Your task to perform on an android device: Open Google Maps Image 0: 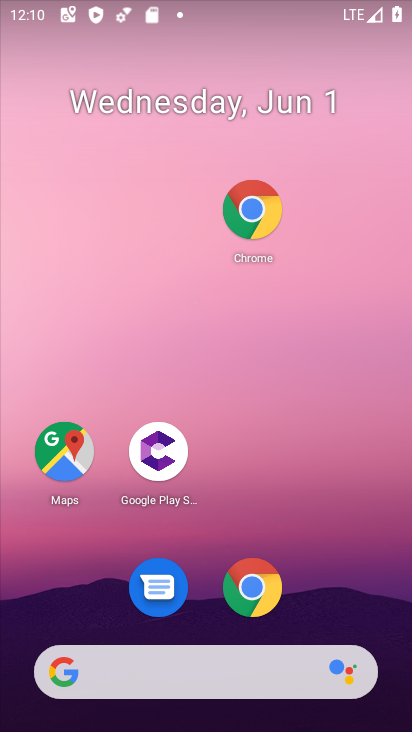
Step 0: click (69, 474)
Your task to perform on an android device: Open Google Maps Image 1: 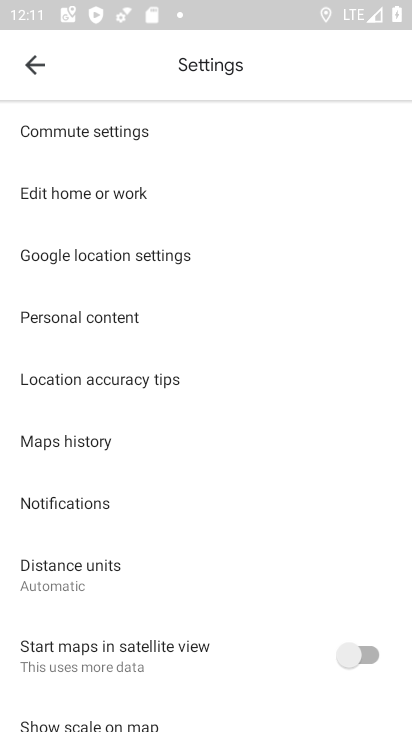
Step 1: press home button
Your task to perform on an android device: Open Google Maps Image 2: 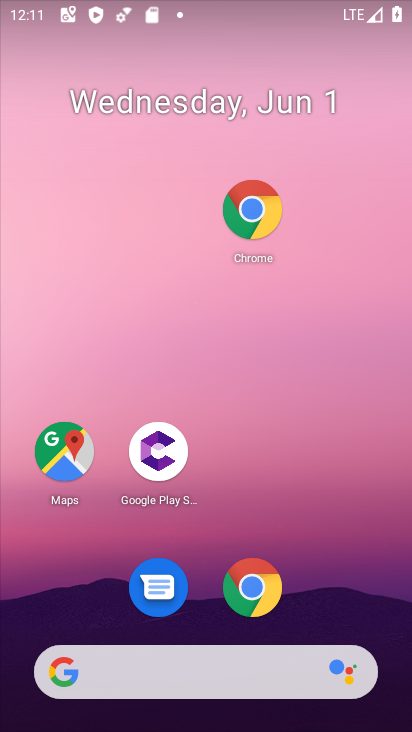
Step 2: click (48, 471)
Your task to perform on an android device: Open Google Maps Image 3: 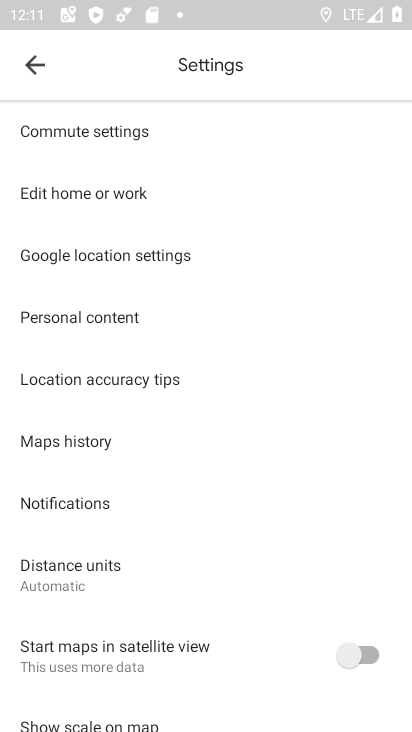
Step 3: click (39, 83)
Your task to perform on an android device: Open Google Maps Image 4: 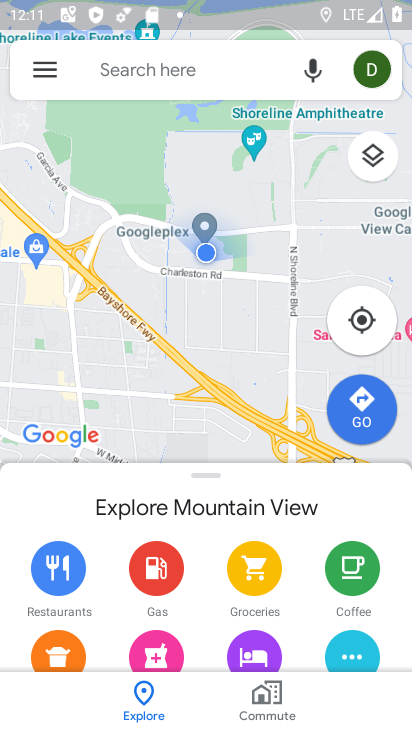
Step 4: task complete